Your task to perform on an android device: toggle pop-ups in chrome Image 0: 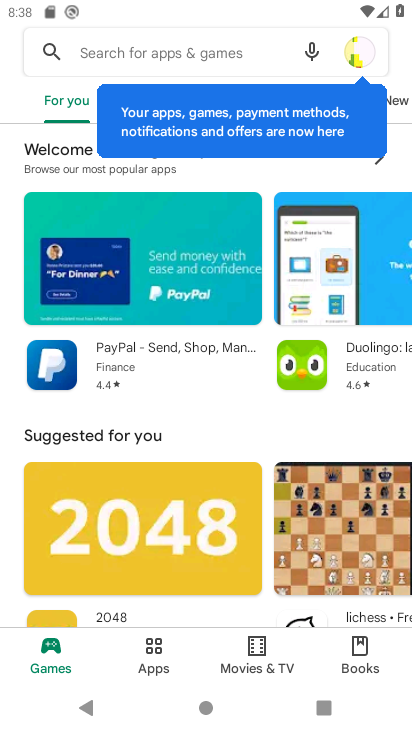
Step 0: press home button
Your task to perform on an android device: toggle pop-ups in chrome Image 1: 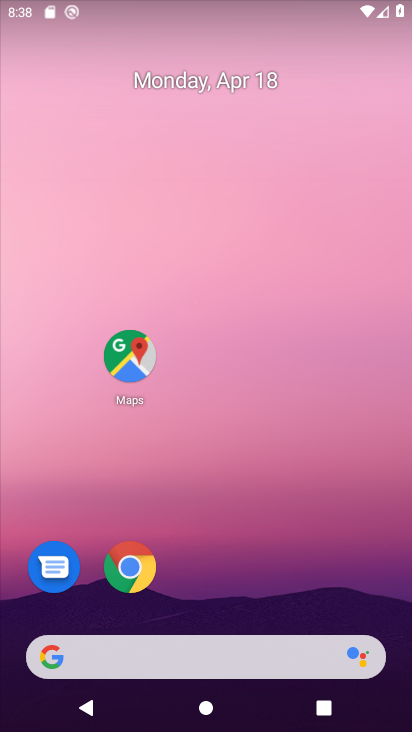
Step 1: drag from (240, 683) to (278, 218)
Your task to perform on an android device: toggle pop-ups in chrome Image 2: 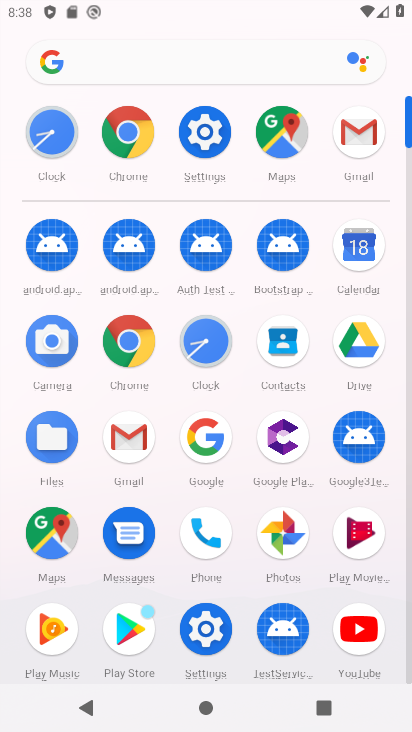
Step 2: click (127, 337)
Your task to perform on an android device: toggle pop-ups in chrome Image 3: 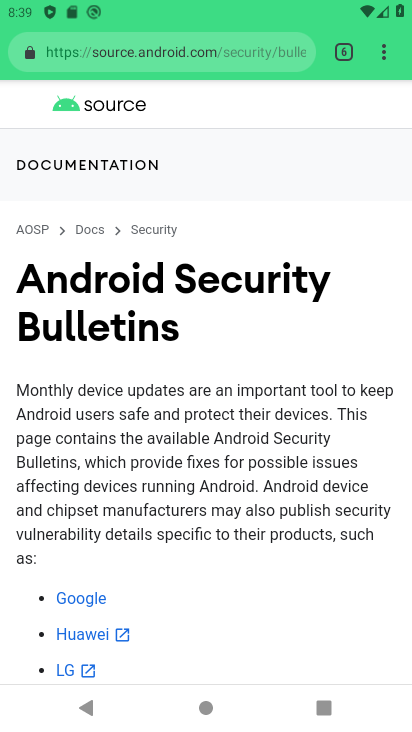
Step 3: click (388, 65)
Your task to perform on an android device: toggle pop-ups in chrome Image 4: 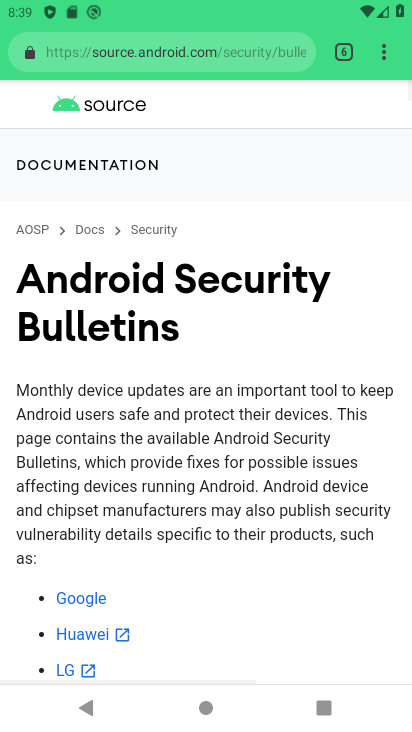
Step 4: click (388, 65)
Your task to perform on an android device: toggle pop-ups in chrome Image 5: 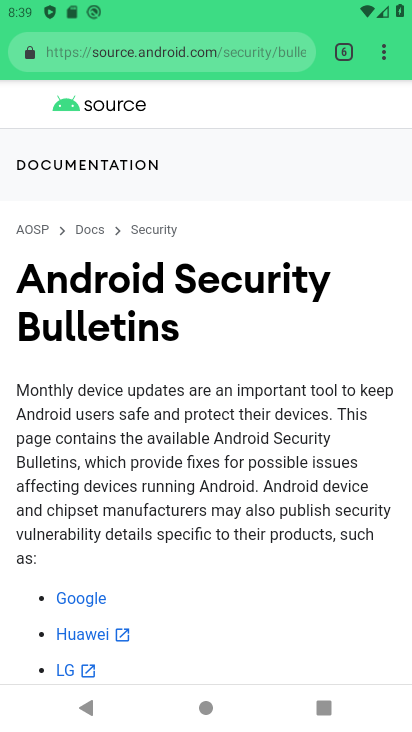
Step 5: click (385, 53)
Your task to perform on an android device: toggle pop-ups in chrome Image 6: 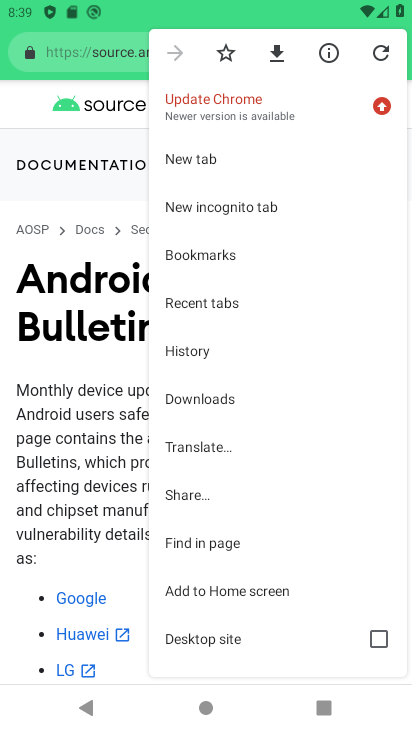
Step 6: drag from (202, 648) to (204, 510)
Your task to perform on an android device: toggle pop-ups in chrome Image 7: 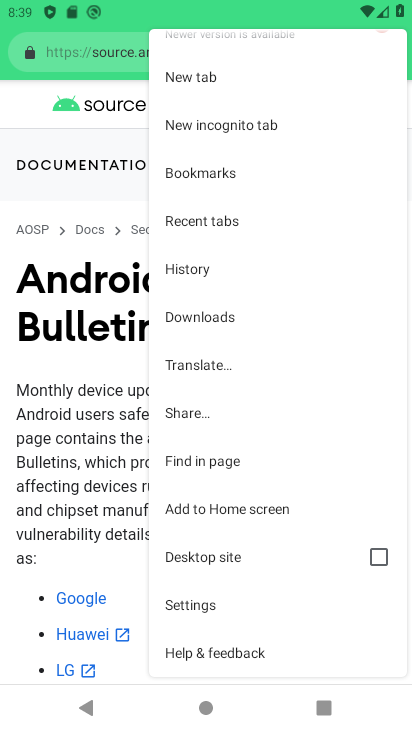
Step 7: click (200, 612)
Your task to perform on an android device: toggle pop-ups in chrome Image 8: 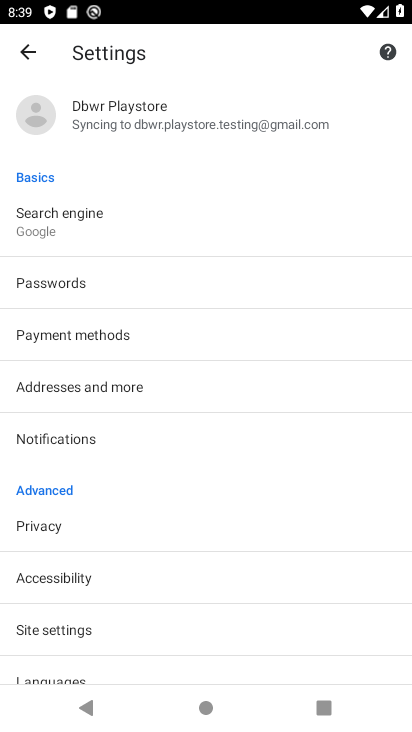
Step 8: click (67, 638)
Your task to perform on an android device: toggle pop-ups in chrome Image 9: 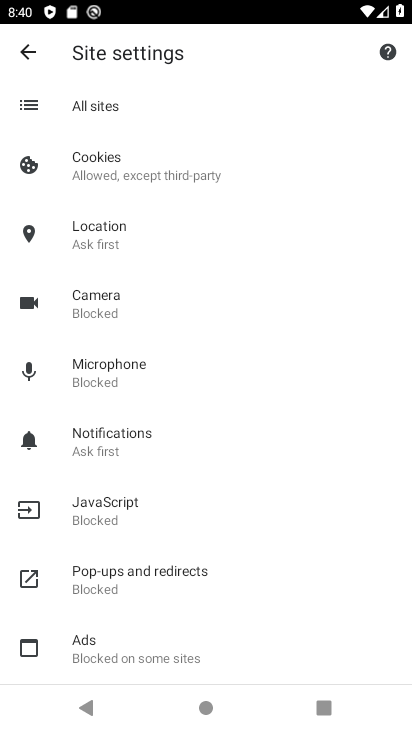
Step 9: click (109, 592)
Your task to perform on an android device: toggle pop-ups in chrome Image 10: 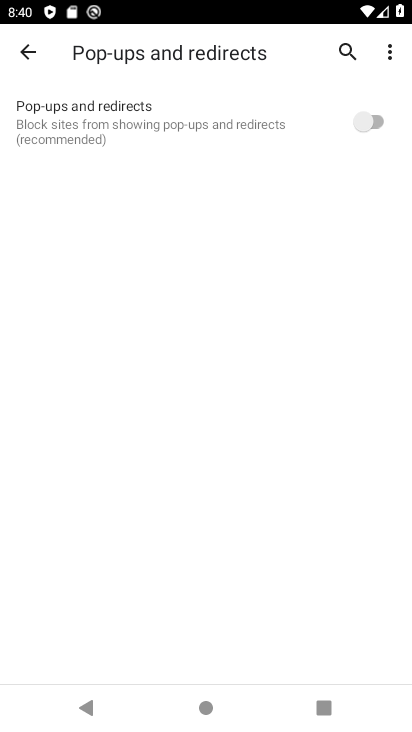
Step 10: click (188, 120)
Your task to perform on an android device: toggle pop-ups in chrome Image 11: 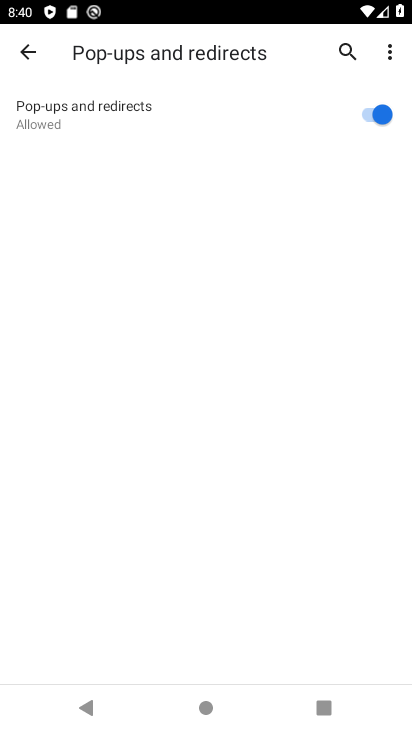
Step 11: task complete